Your task to perform on an android device: Do I have any events today? Image 0: 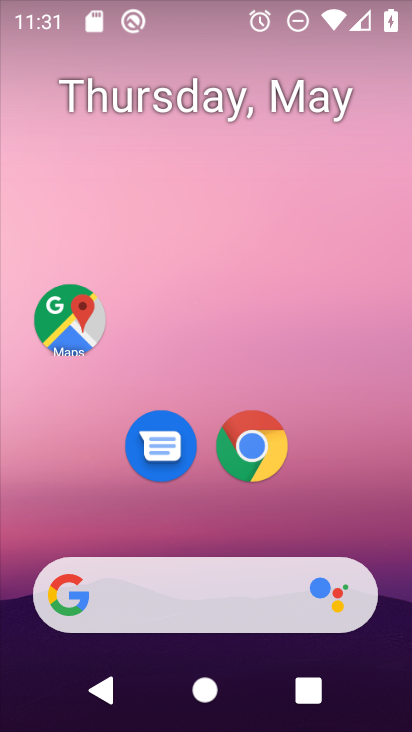
Step 0: drag from (248, 638) to (270, 109)
Your task to perform on an android device: Do I have any events today? Image 1: 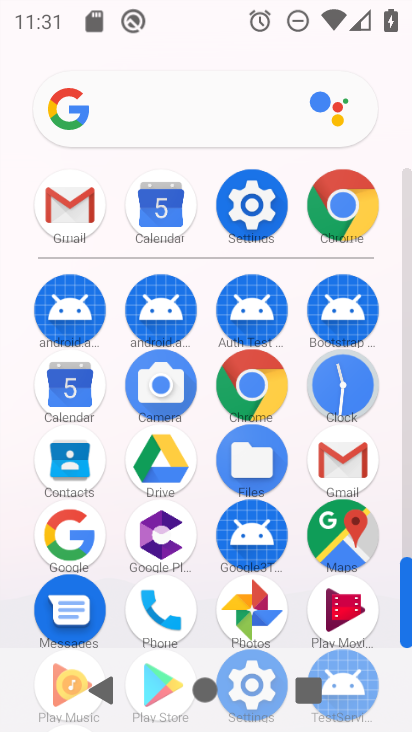
Step 1: click (76, 382)
Your task to perform on an android device: Do I have any events today? Image 2: 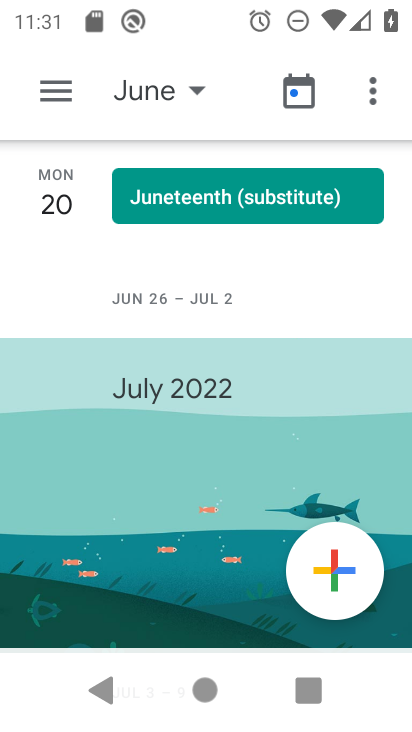
Step 2: click (61, 91)
Your task to perform on an android device: Do I have any events today? Image 3: 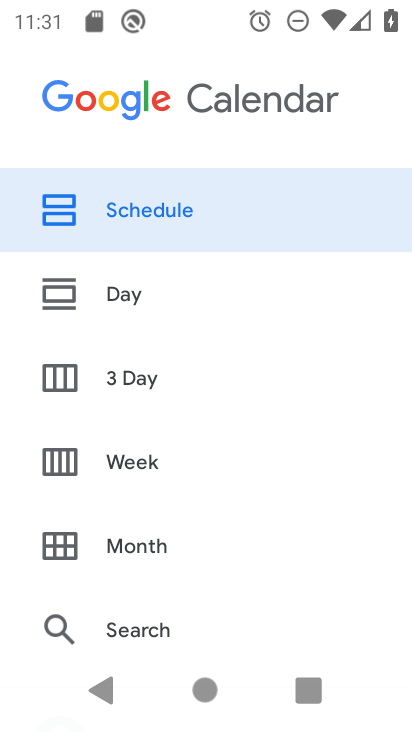
Step 3: drag from (158, 588) to (239, 462)
Your task to perform on an android device: Do I have any events today? Image 4: 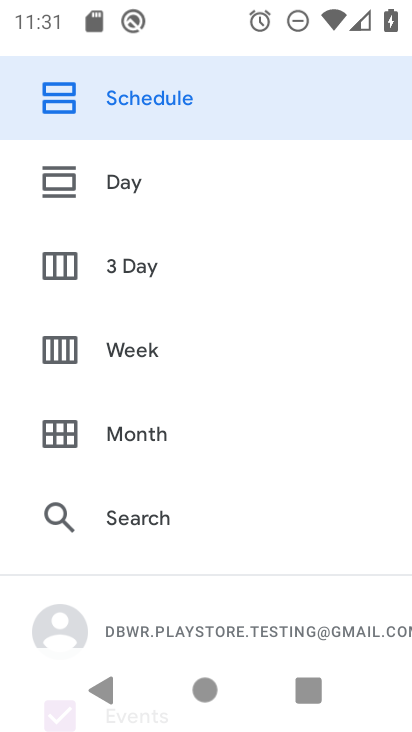
Step 4: click (167, 110)
Your task to perform on an android device: Do I have any events today? Image 5: 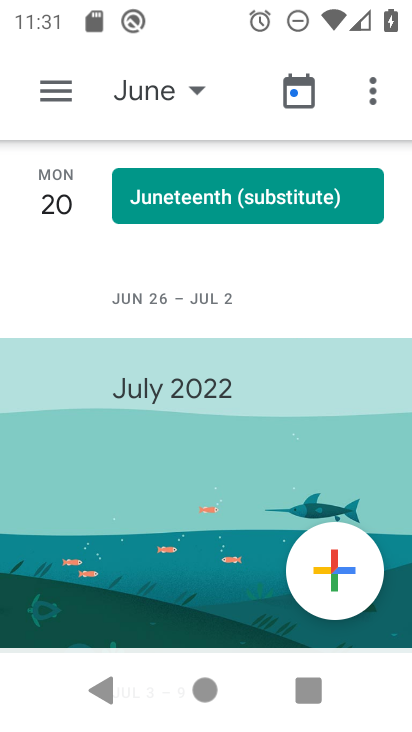
Step 5: click (52, 93)
Your task to perform on an android device: Do I have any events today? Image 6: 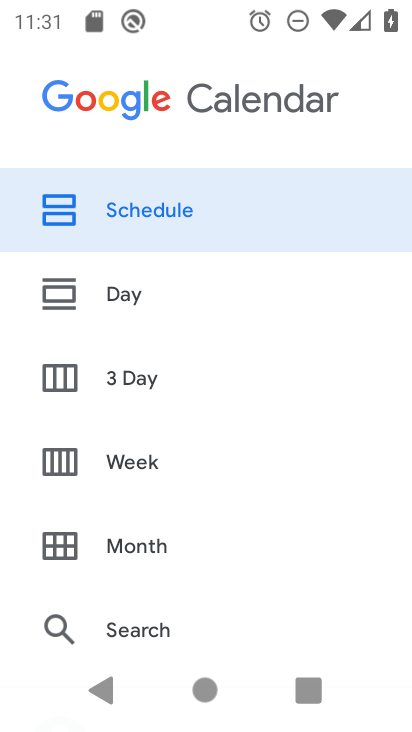
Step 6: click (175, 536)
Your task to perform on an android device: Do I have any events today? Image 7: 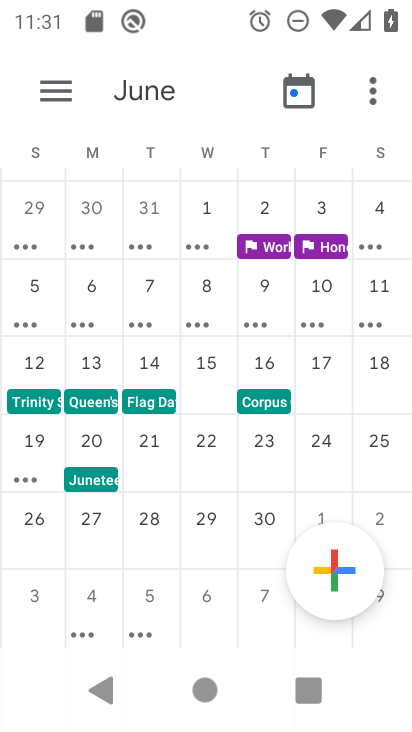
Step 7: drag from (32, 456) to (58, 510)
Your task to perform on an android device: Do I have any events today? Image 8: 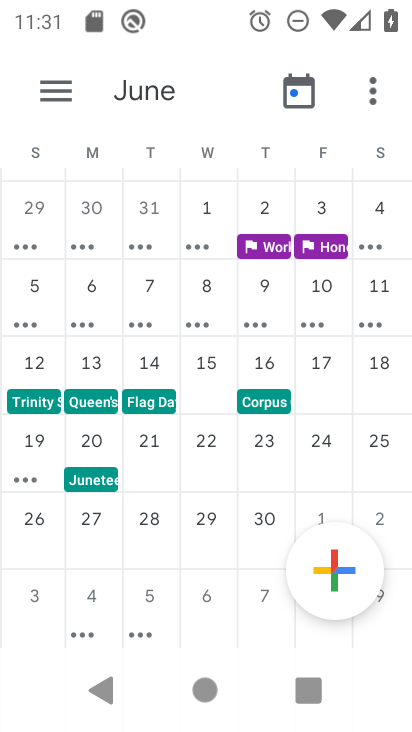
Step 8: drag from (39, 460) to (400, 274)
Your task to perform on an android device: Do I have any events today? Image 9: 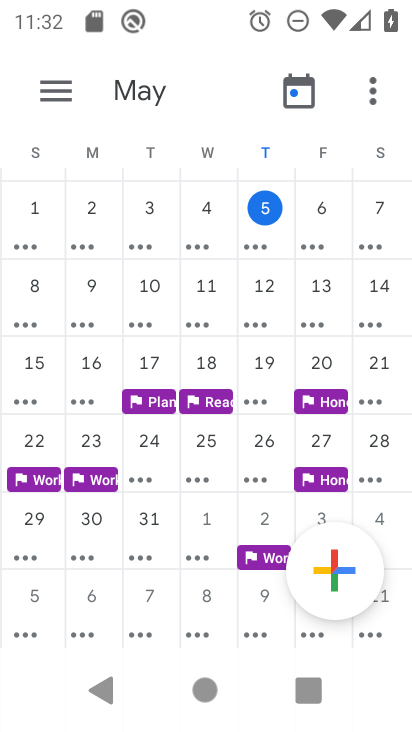
Step 9: click (273, 214)
Your task to perform on an android device: Do I have any events today? Image 10: 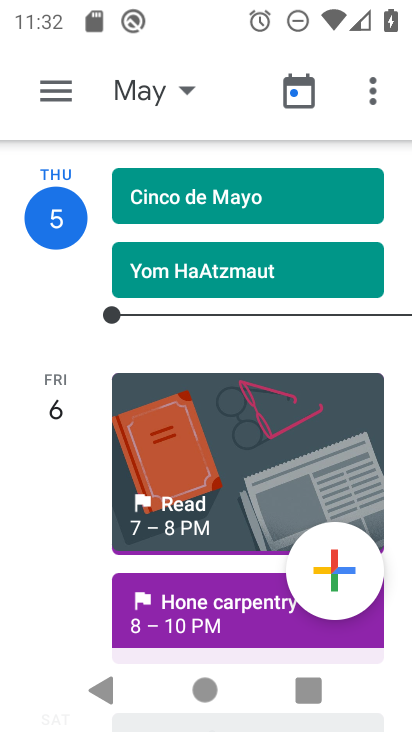
Step 10: task complete